Your task to perform on an android device: Open CNN.com Image 0: 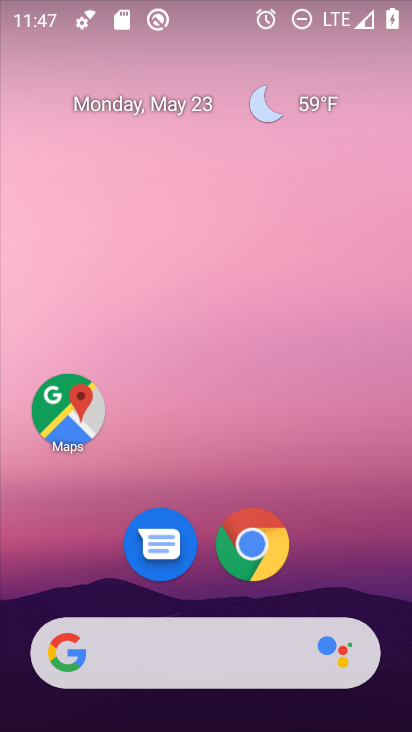
Step 0: click (254, 550)
Your task to perform on an android device: Open CNN.com Image 1: 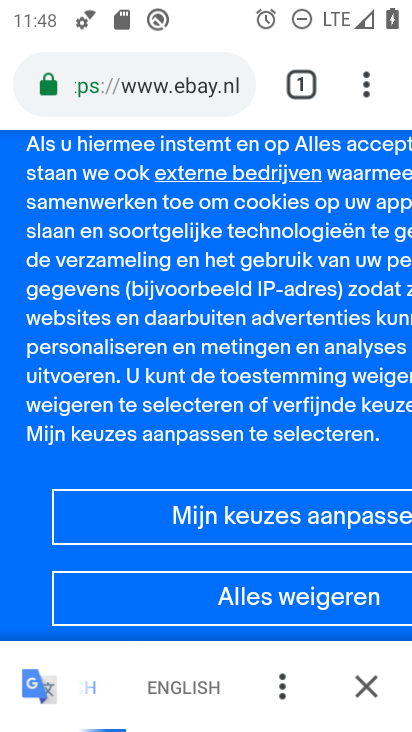
Step 1: click (128, 83)
Your task to perform on an android device: Open CNN.com Image 2: 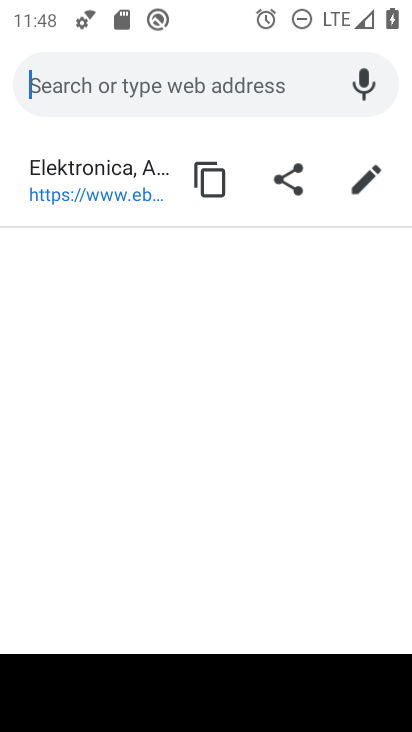
Step 2: type "cnn.com"
Your task to perform on an android device: Open CNN.com Image 3: 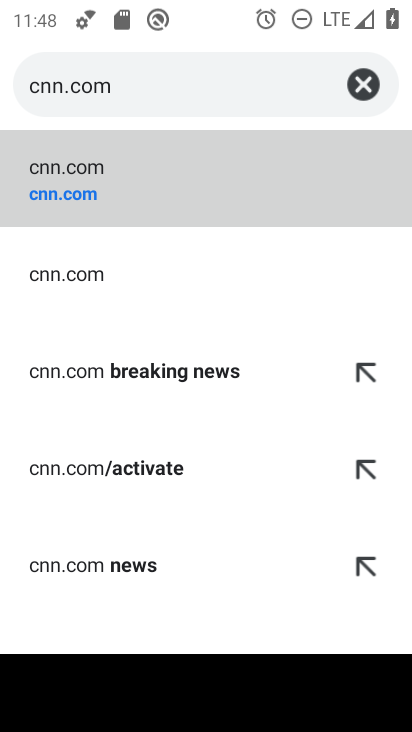
Step 3: click (68, 161)
Your task to perform on an android device: Open CNN.com Image 4: 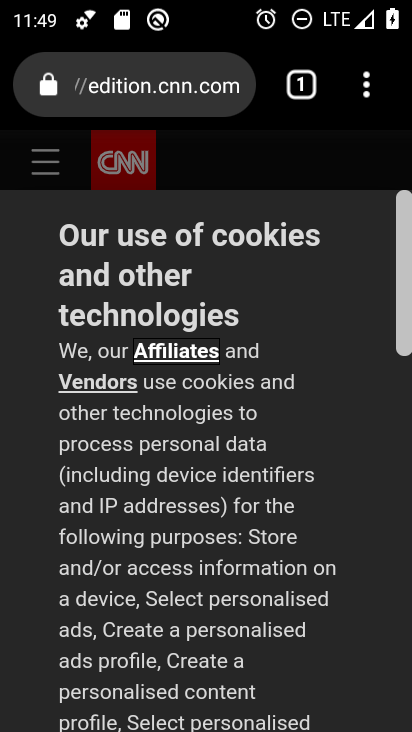
Step 4: task complete